Your task to perform on an android device: Open CNN.com Image 0: 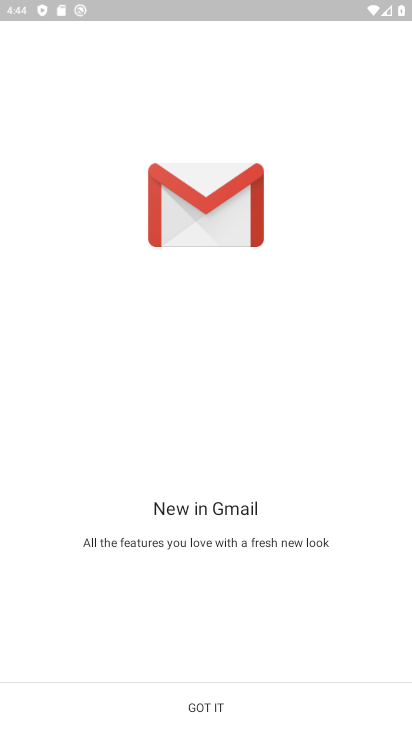
Step 0: press home button
Your task to perform on an android device: Open CNN.com Image 1: 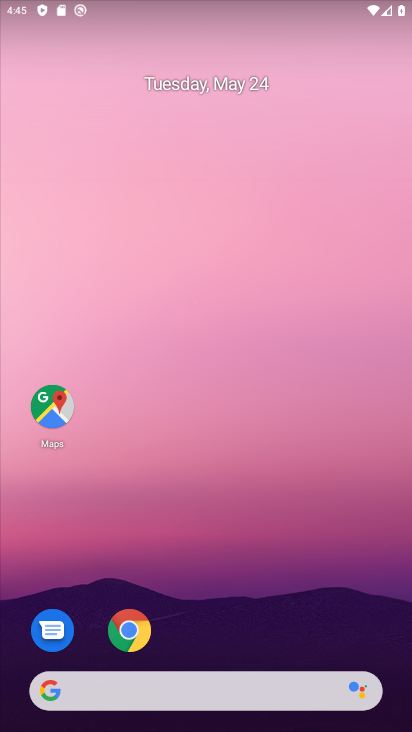
Step 1: click (100, 686)
Your task to perform on an android device: Open CNN.com Image 2: 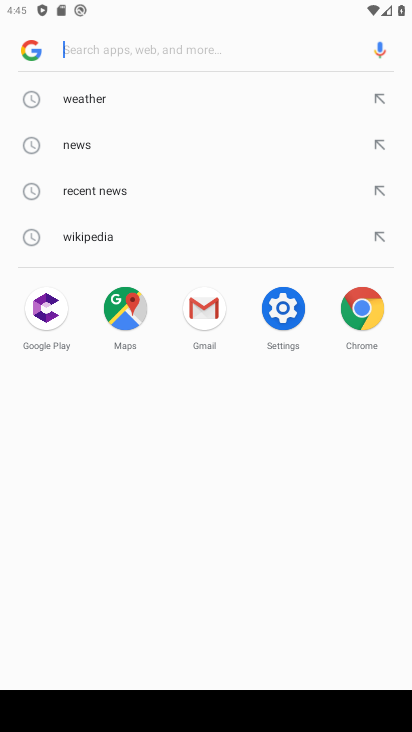
Step 2: type "cnn.com"
Your task to perform on an android device: Open CNN.com Image 3: 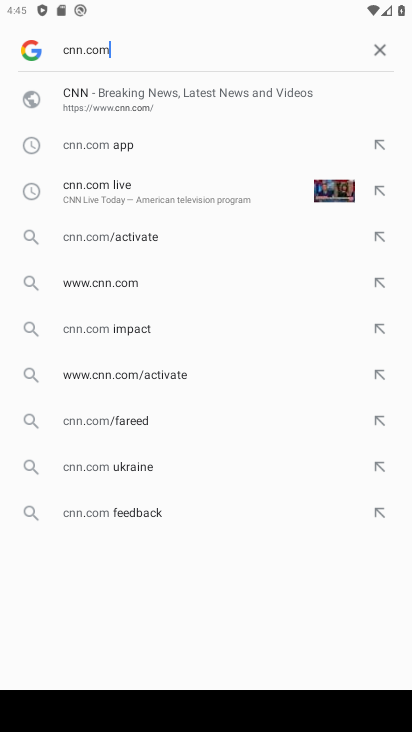
Step 3: click (89, 100)
Your task to perform on an android device: Open CNN.com Image 4: 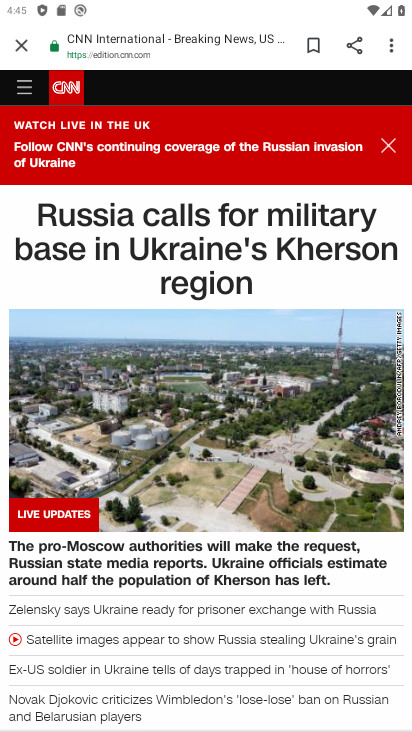
Step 4: task complete